Your task to perform on an android device: turn off data saver in the chrome app Image 0: 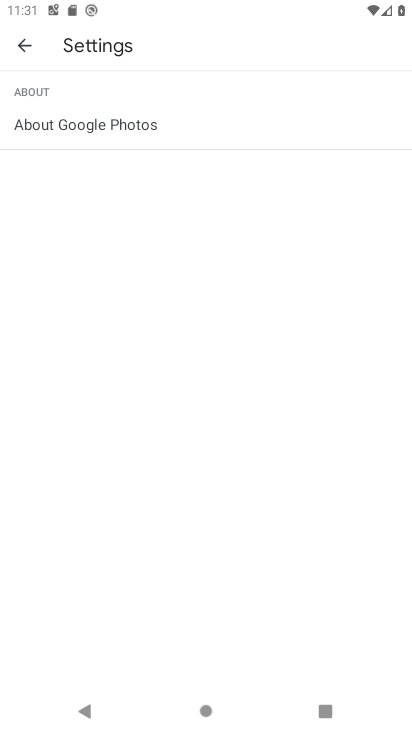
Step 0: press back button
Your task to perform on an android device: turn off data saver in the chrome app Image 1: 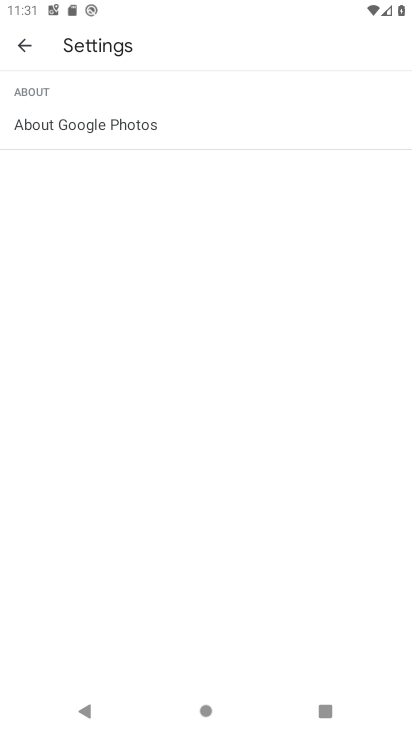
Step 1: press back button
Your task to perform on an android device: turn off data saver in the chrome app Image 2: 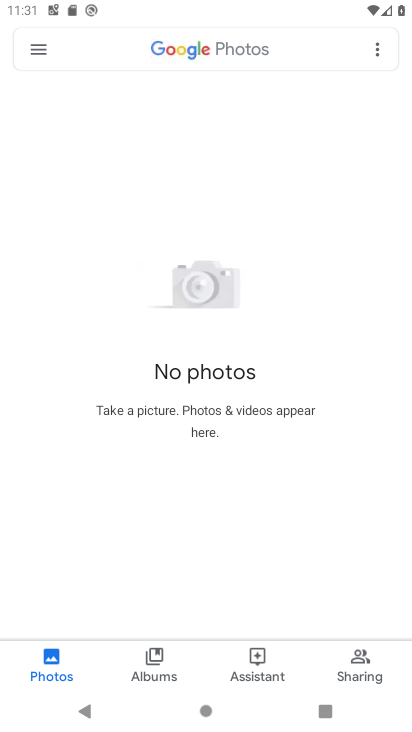
Step 2: click (29, 44)
Your task to perform on an android device: turn off data saver in the chrome app Image 3: 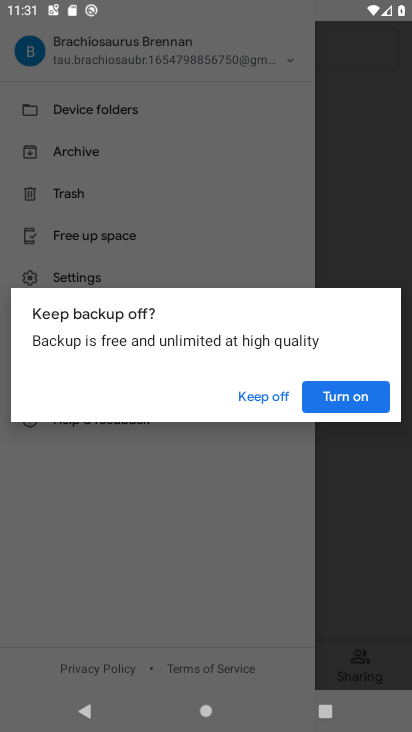
Step 3: click (355, 234)
Your task to perform on an android device: turn off data saver in the chrome app Image 4: 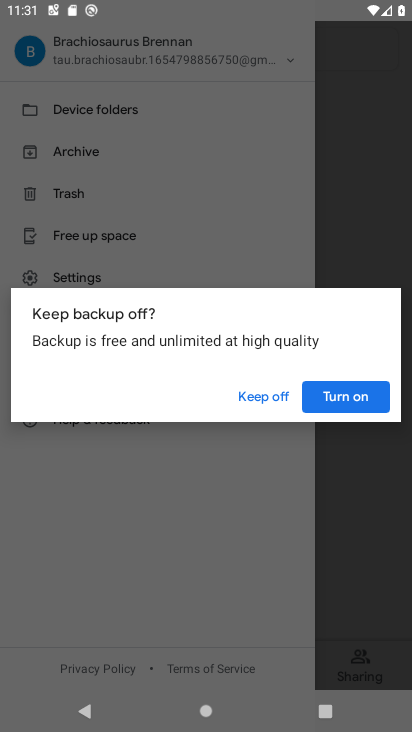
Step 4: click (355, 233)
Your task to perform on an android device: turn off data saver in the chrome app Image 5: 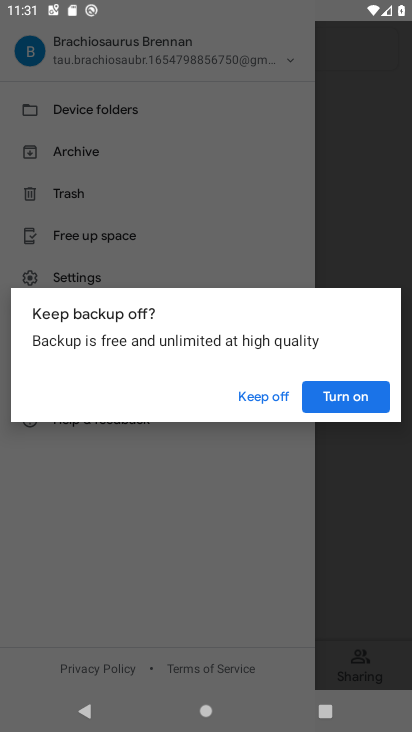
Step 5: click (370, 223)
Your task to perform on an android device: turn off data saver in the chrome app Image 6: 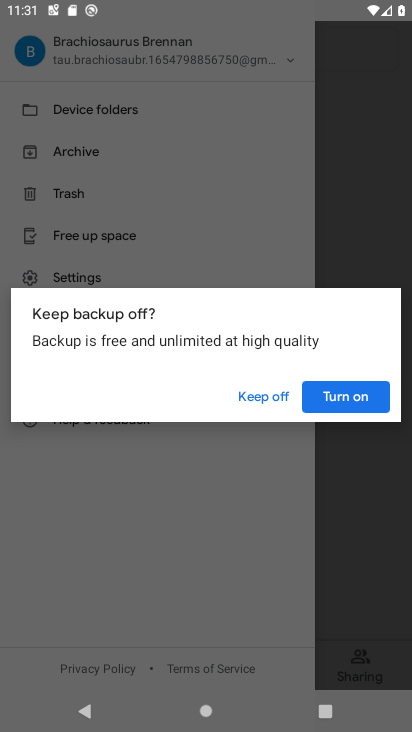
Step 6: click (352, 462)
Your task to perform on an android device: turn off data saver in the chrome app Image 7: 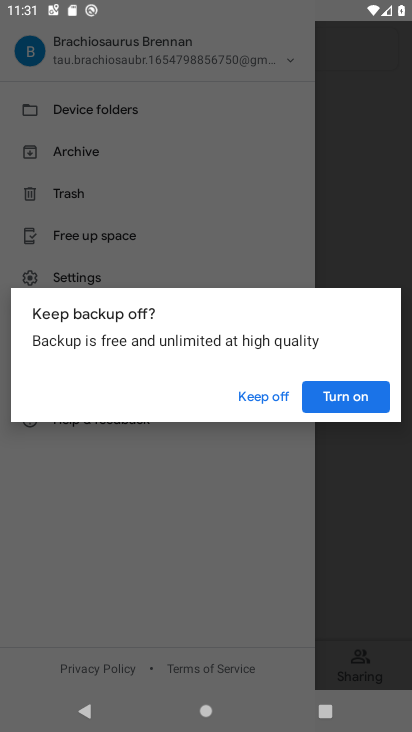
Step 7: click (349, 462)
Your task to perform on an android device: turn off data saver in the chrome app Image 8: 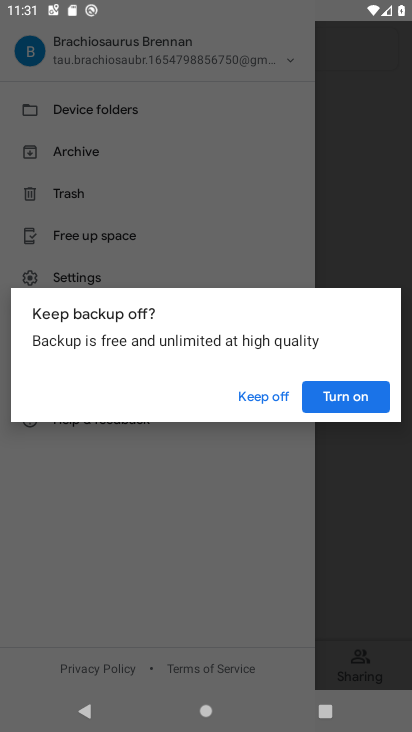
Step 8: click (357, 182)
Your task to perform on an android device: turn off data saver in the chrome app Image 9: 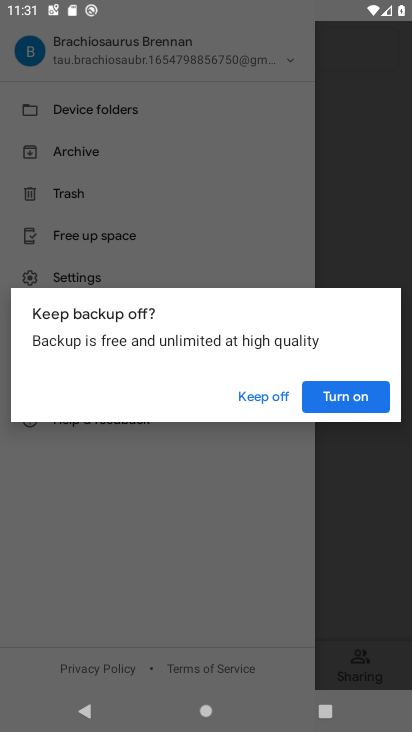
Step 9: click (358, 183)
Your task to perform on an android device: turn off data saver in the chrome app Image 10: 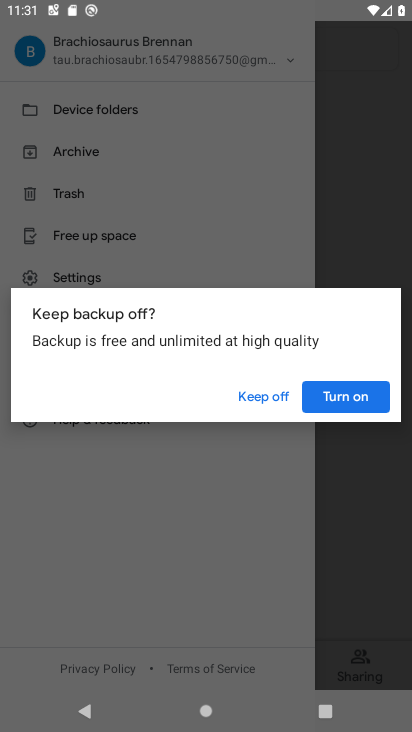
Step 10: click (358, 183)
Your task to perform on an android device: turn off data saver in the chrome app Image 11: 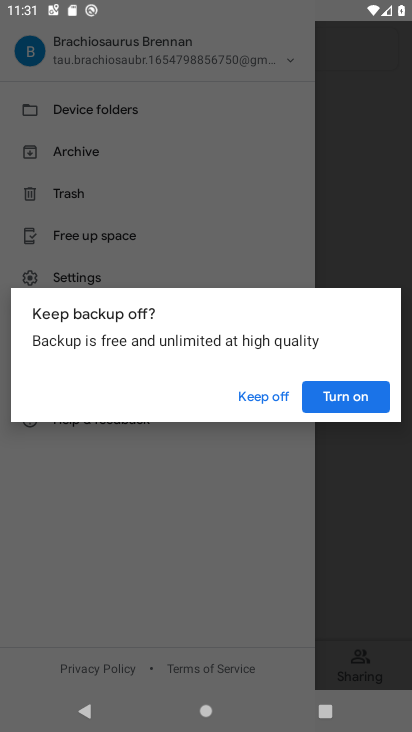
Step 11: click (357, 183)
Your task to perform on an android device: turn off data saver in the chrome app Image 12: 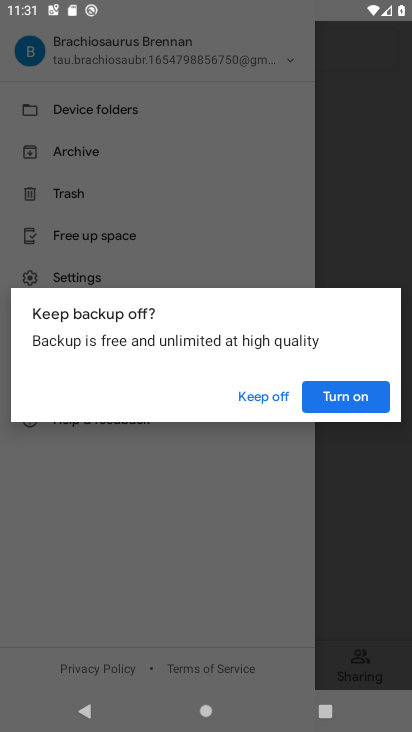
Step 12: click (330, 196)
Your task to perform on an android device: turn off data saver in the chrome app Image 13: 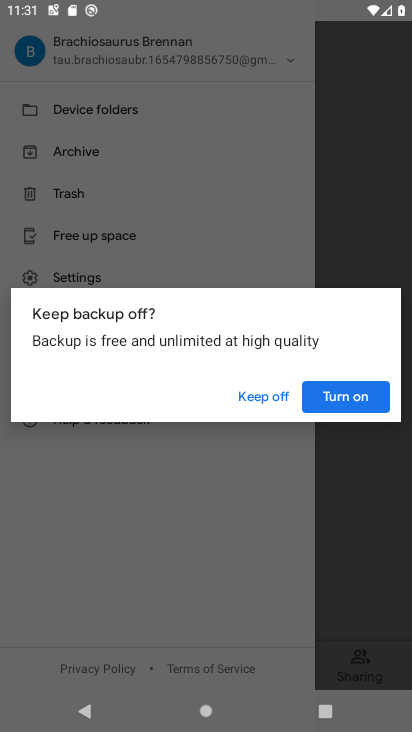
Step 13: click (332, 198)
Your task to perform on an android device: turn off data saver in the chrome app Image 14: 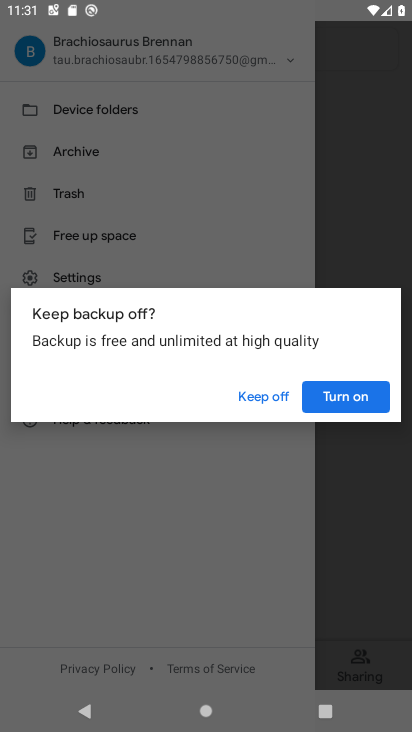
Step 14: click (332, 198)
Your task to perform on an android device: turn off data saver in the chrome app Image 15: 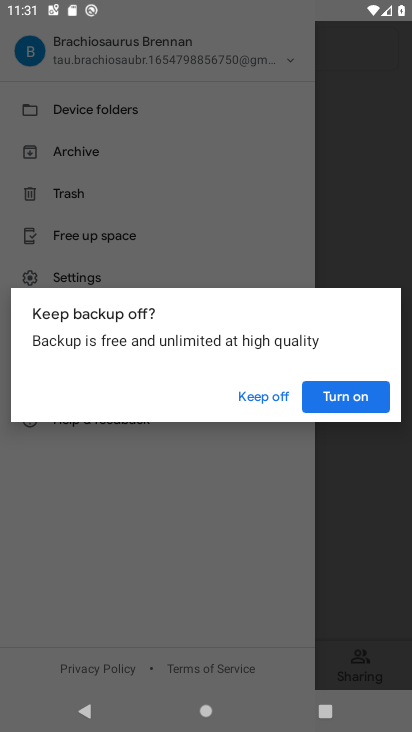
Step 15: click (332, 198)
Your task to perform on an android device: turn off data saver in the chrome app Image 16: 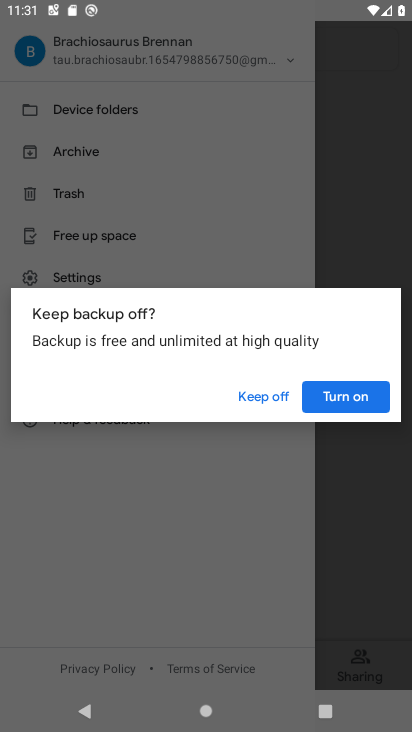
Step 16: click (387, 500)
Your task to perform on an android device: turn off data saver in the chrome app Image 17: 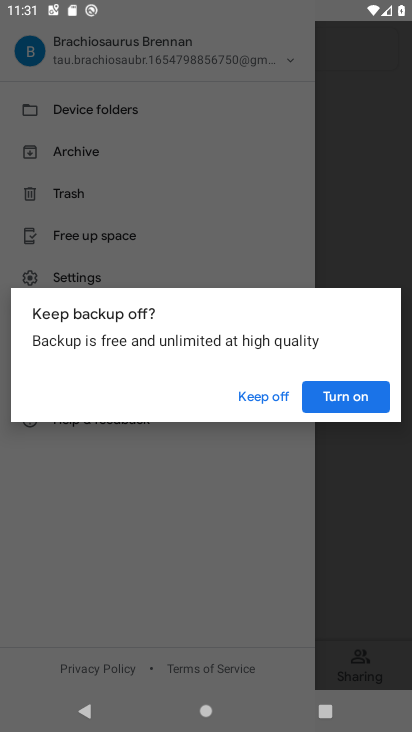
Step 17: click (384, 486)
Your task to perform on an android device: turn off data saver in the chrome app Image 18: 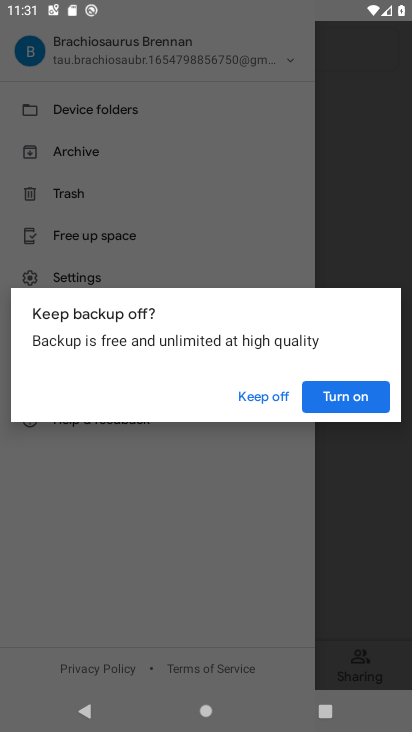
Step 18: press back button
Your task to perform on an android device: turn off data saver in the chrome app Image 19: 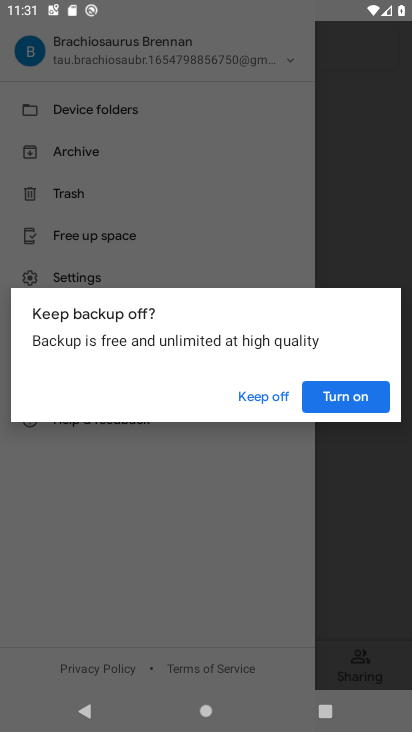
Step 19: press back button
Your task to perform on an android device: turn off data saver in the chrome app Image 20: 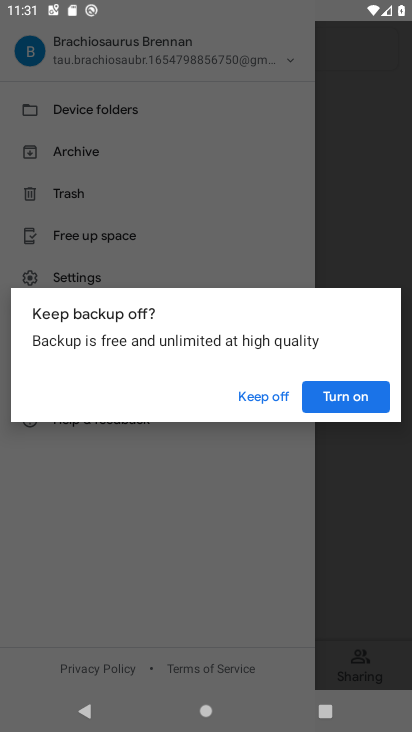
Step 20: press home button
Your task to perform on an android device: turn off data saver in the chrome app Image 21: 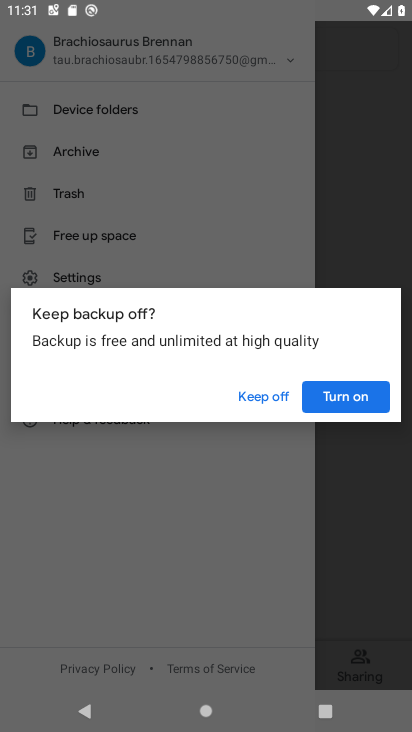
Step 21: press home button
Your task to perform on an android device: turn off data saver in the chrome app Image 22: 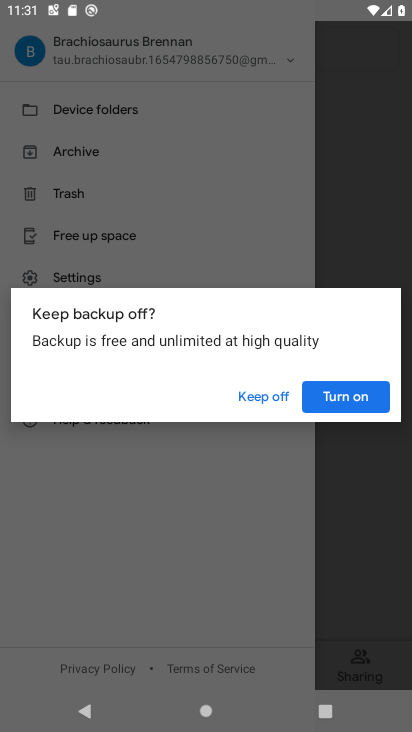
Step 22: click (360, 474)
Your task to perform on an android device: turn off data saver in the chrome app Image 23: 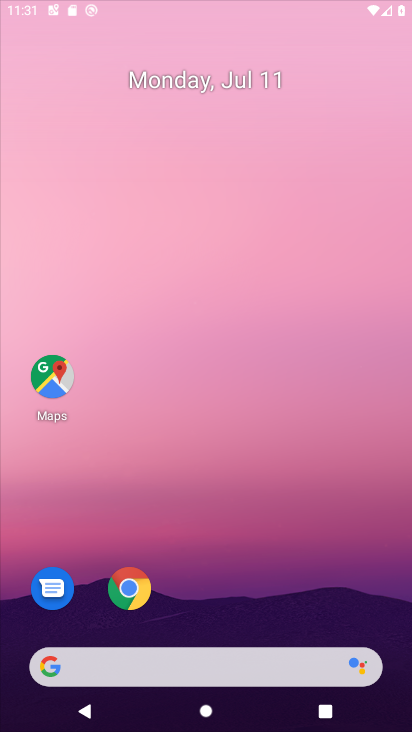
Step 23: click (362, 474)
Your task to perform on an android device: turn off data saver in the chrome app Image 24: 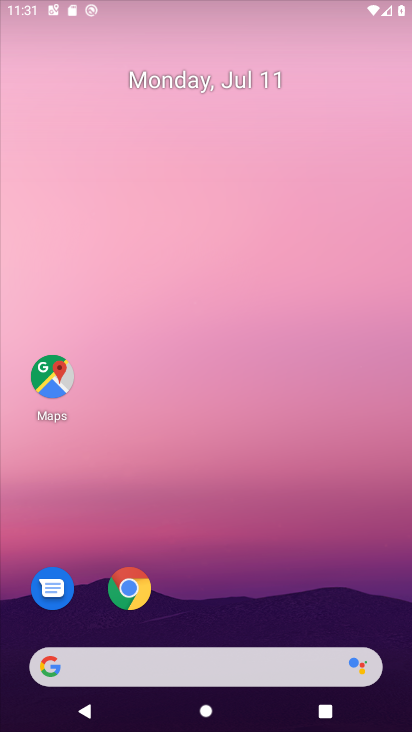
Step 24: click (362, 474)
Your task to perform on an android device: turn off data saver in the chrome app Image 25: 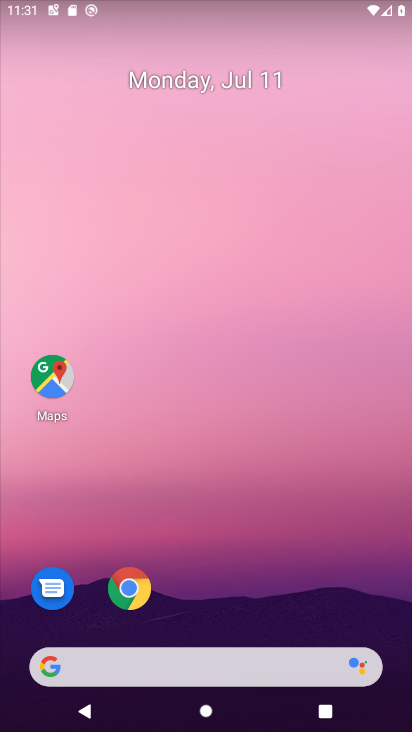
Step 25: drag from (246, 680) to (225, 102)
Your task to perform on an android device: turn off data saver in the chrome app Image 26: 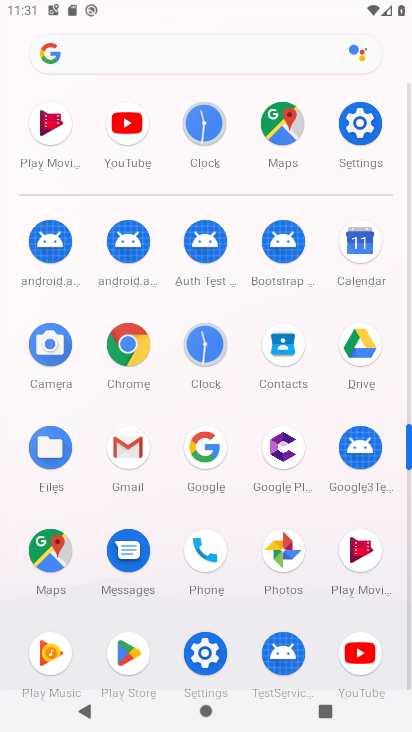
Step 26: click (147, 357)
Your task to perform on an android device: turn off data saver in the chrome app Image 27: 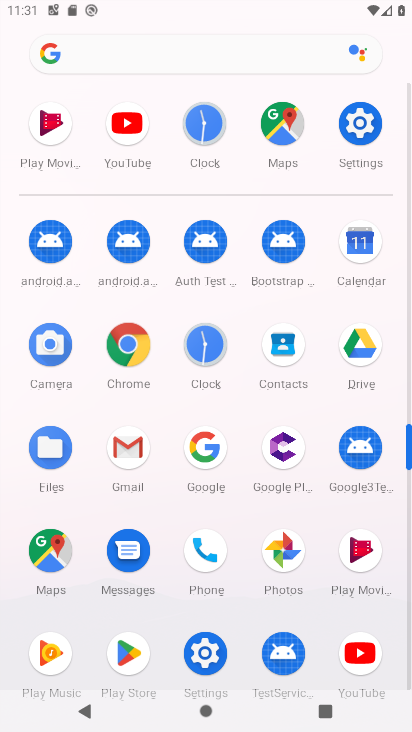
Step 27: click (122, 347)
Your task to perform on an android device: turn off data saver in the chrome app Image 28: 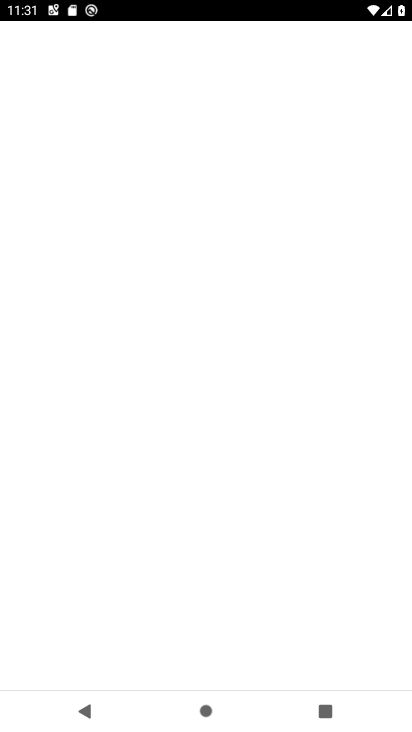
Step 28: click (121, 348)
Your task to perform on an android device: turn off data saver in the chrome app Image 29: 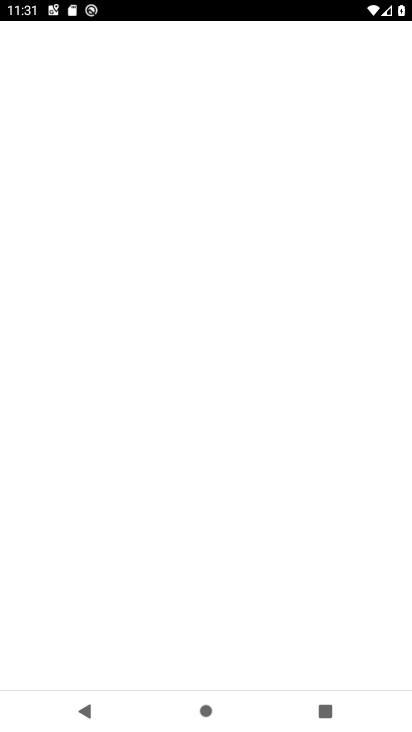
Step 29: click (121, 348)
Your task to perform on an android device: turn off data saver in the chrome app Image 30: 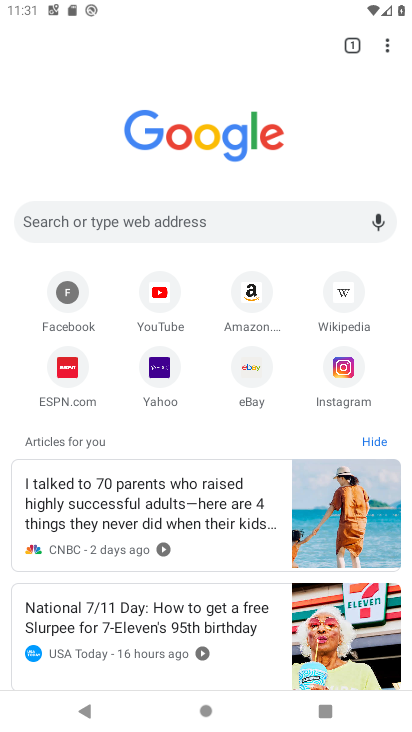
Step 30: click (383, 43)
Your task to perform on an android device: turn off data saver in the chrome app Image 31: 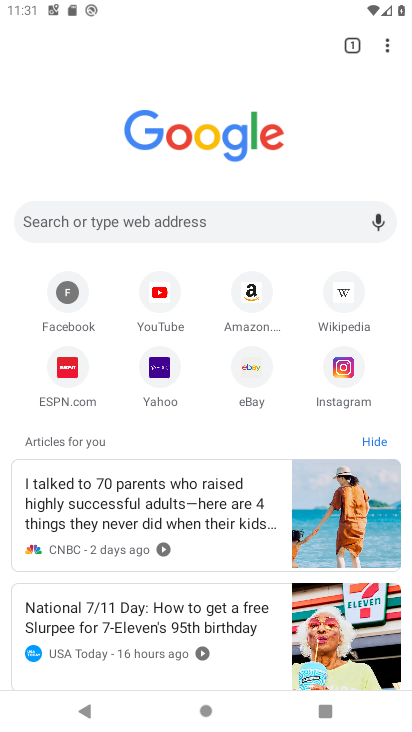
Step 31: click (381, 48)
Your task to perform on an android device: turn off data saver in the chrome app Image 32: 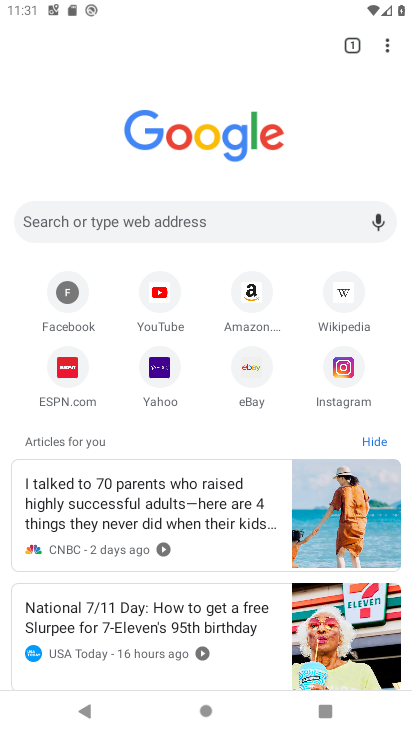
Step 32: click (390, 41)
Your task to perform on an android device: turn off data saver in the chrome app Image 33: 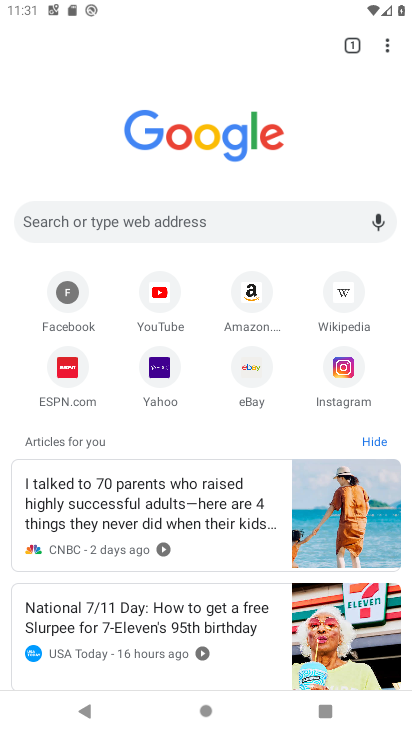
Step 33: click (388, 47)
Your task to perform on an android device: turn off data saver in the chrome app Image 34: 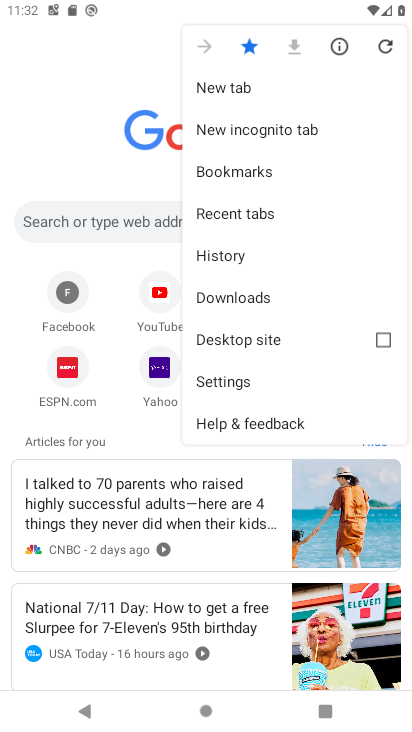
Step 34: click (213, 374)
Your task to perform on an android device: turn off data saver in the chrome app Image 35: 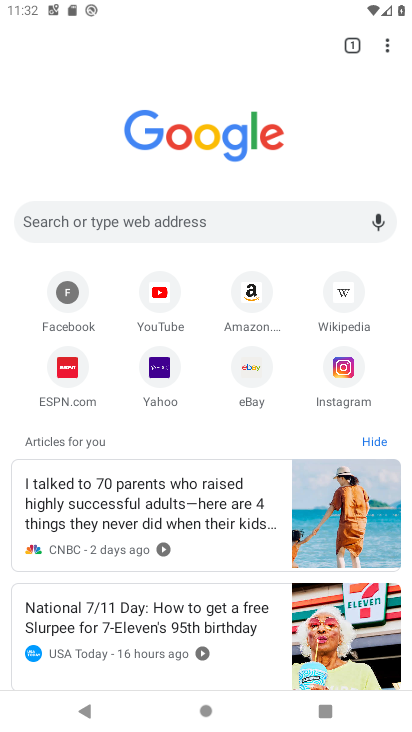
Step 35: click (216, 374)
Your task to perform on an android device: turn off data saver in the chrome app Image 36: 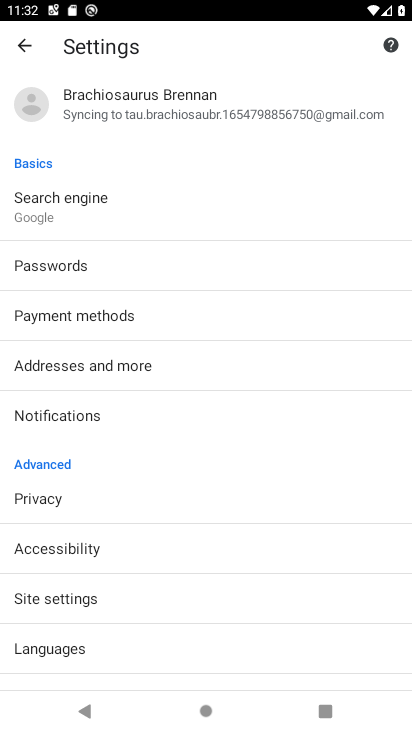
Step 36: click (44, 596)
Your task to perform on an android device: turn off data saver in the chrome app Image 37: 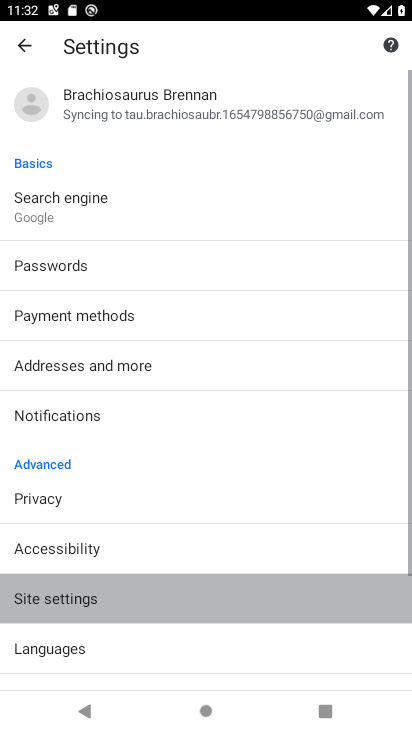
Step 37: click (43, 596)
Your task to perform on an android device: turn off data saver in the chrome app Image 38: 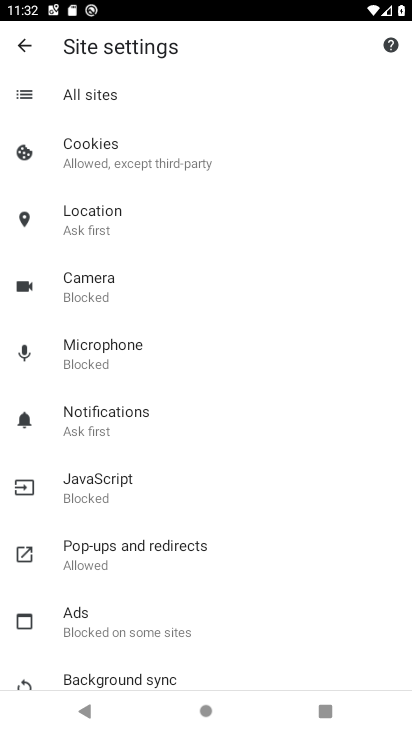
Step 38: drag from (112, 404) to (103, 264)
Your task to perform on an android device: turn off data saver in the chrome app Image 39: 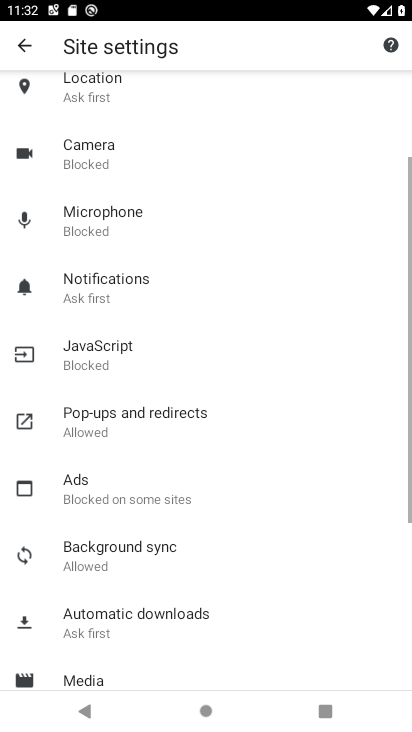
Step 39: click (19, 44)
Your task to perform on an android device: turn off data saver in the chrome app Image 40: 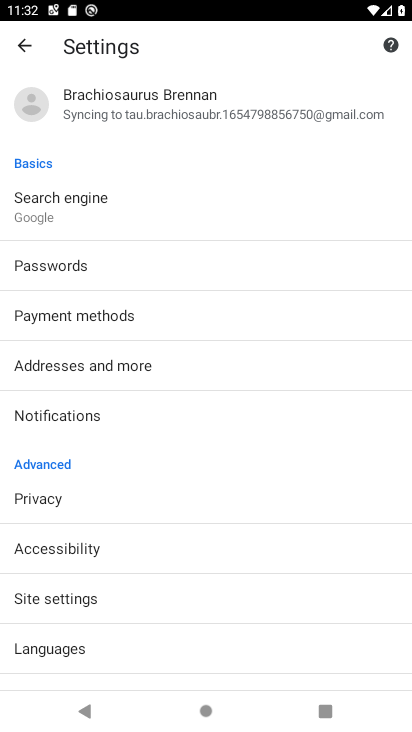
Step 40: drag from (64, 606) to (54, 210)
Your task to perform on an android device: turn off data saver in the chrome app Image 41: 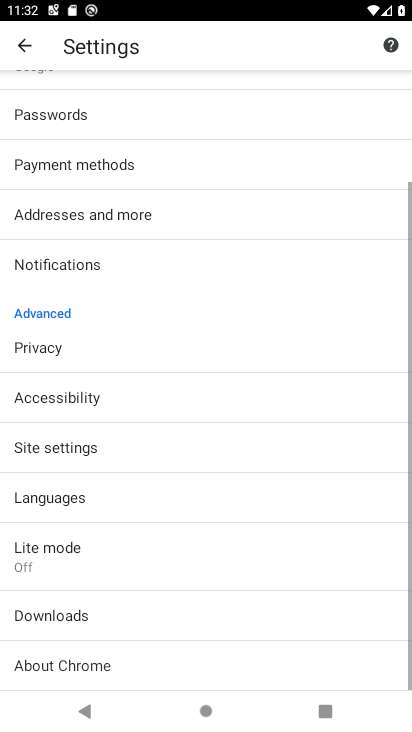
Step 41: drag from (77, 495) to (67, 242)
Your task to perform on an android device: turn off data saver in the chrome app Image 42: 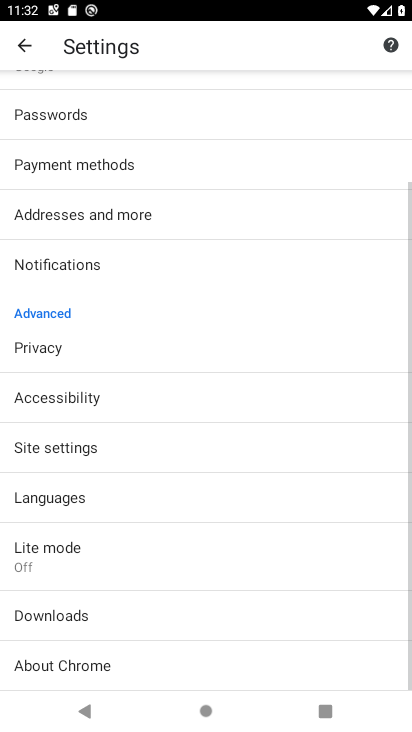
Step 42: click (47, 544)
Your task to perform on an android device: turn off data saver in the chrome app Image 43: 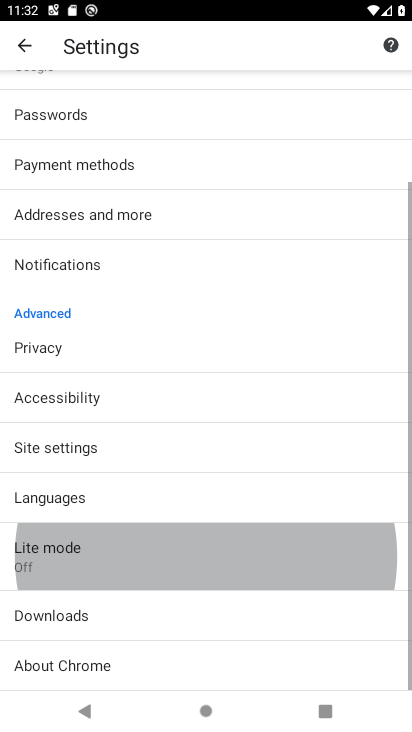
Step 43: click (47, 544)
Your task to perform on an android device: turn off data saver in the chrome app Image 44: 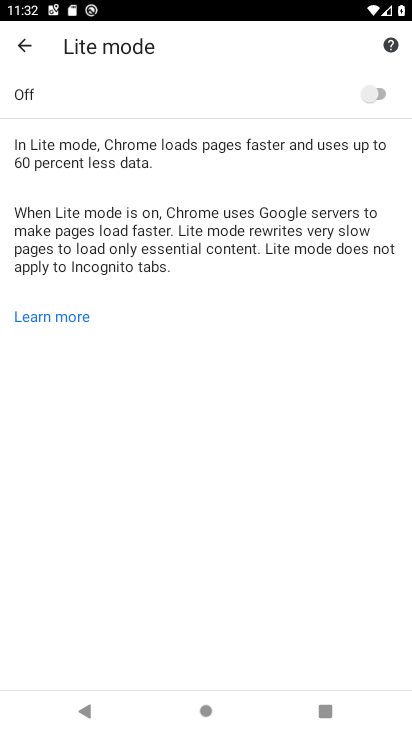
Step 44: task complete